Your task to perform on an android device: check data usage Image 0: 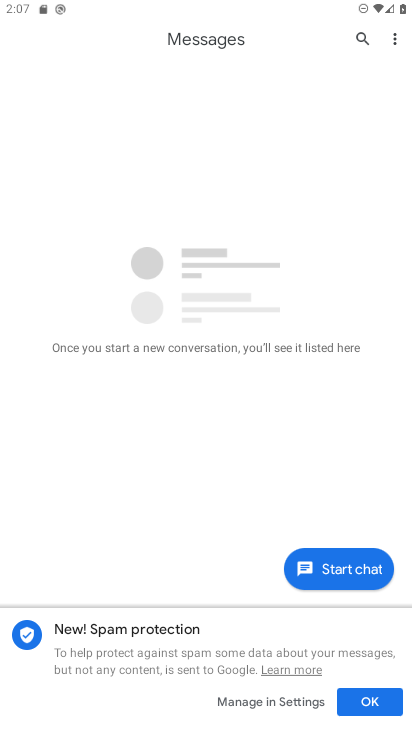
Step 0: press home button
Your task to perform on an android device: check data usage Image 1: 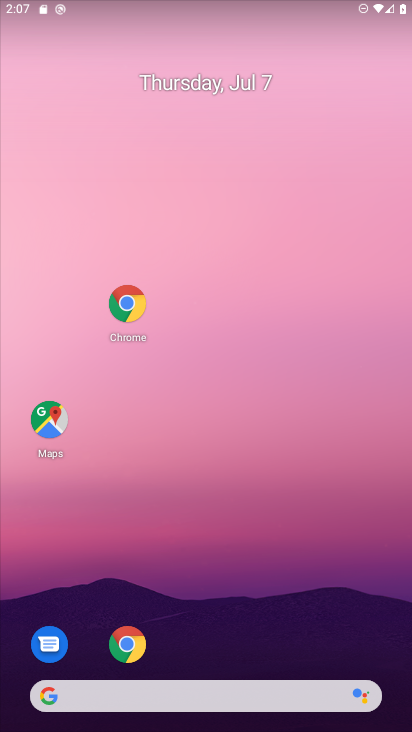
Step 1: drag from (240, 636) to (221, 179)
Your task to perform on an android device: check data usage Image 2: 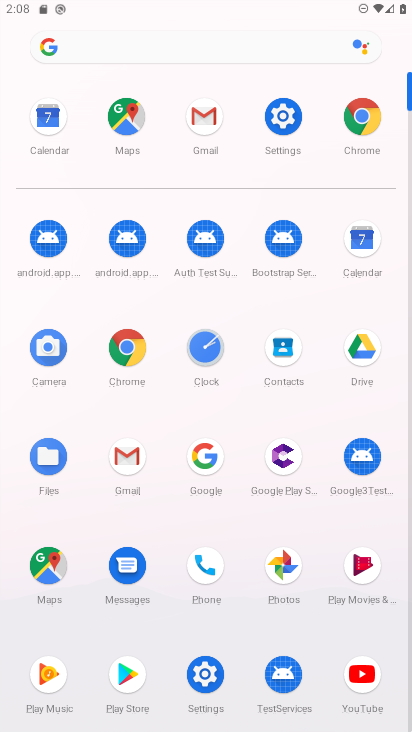
Step 2: click (211, 673)
Your task to perform on an android device: check data usage Image 3: 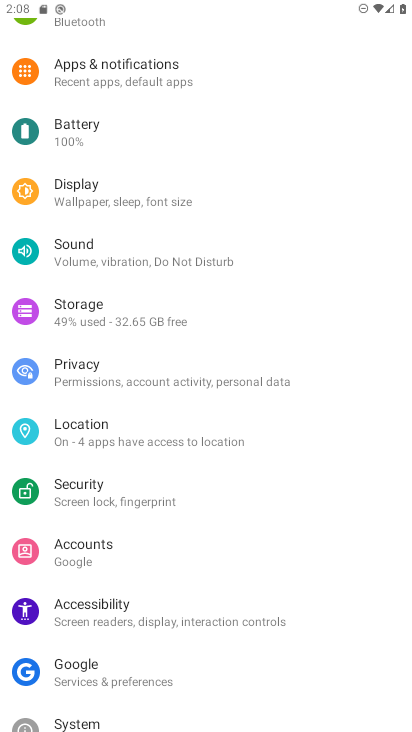
Step 3: drag from (199, 102) to (176, 400)
Your task to perform on an android device: check data usage Image 4: 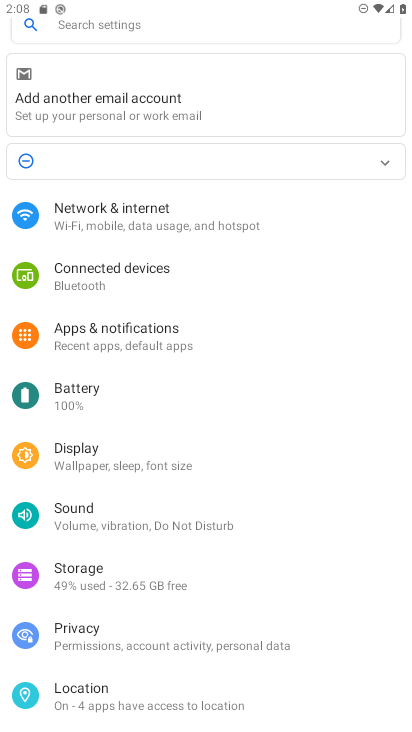
Step 4: click (202, 111)
Your task to perform on an android device: check data usage Image 5: 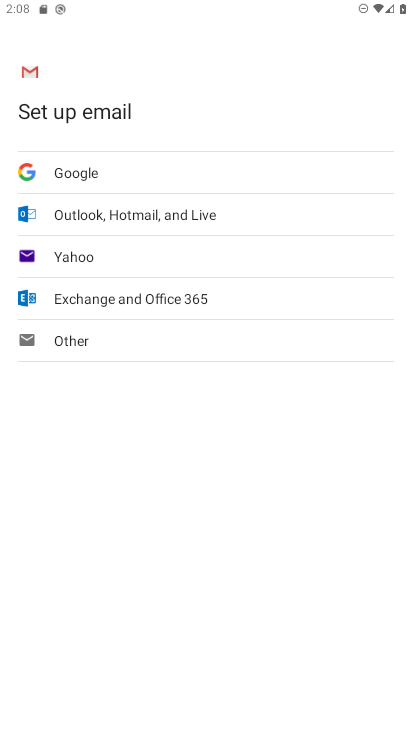
Step 5: press back button
Your task to perform on an android device: check data usage Image 6: 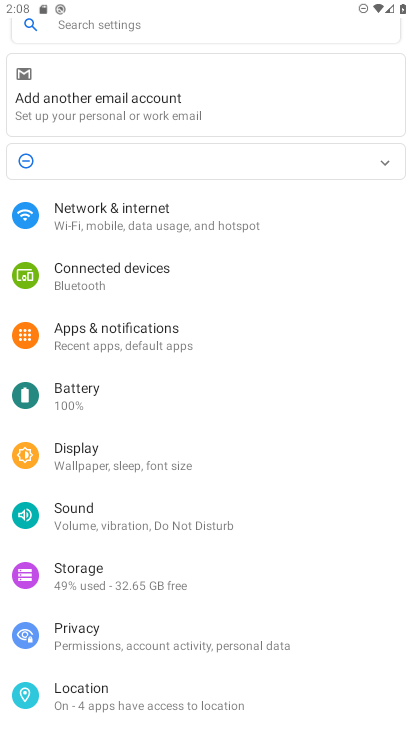
Step 6: click (113, 225)
Your task to perform on an android device: check data usage Image 7: 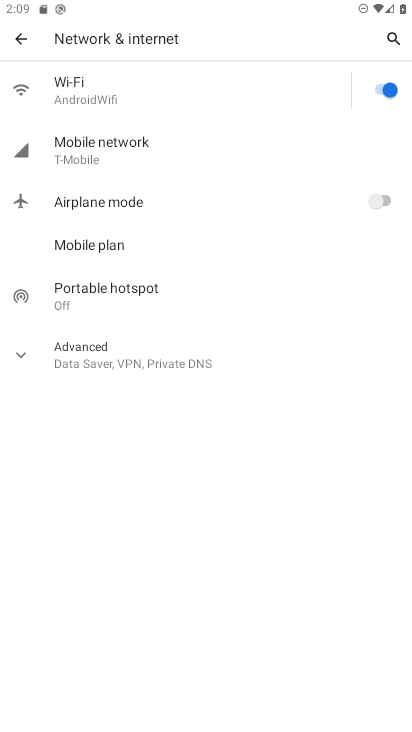
Step 7: click (179, 150)
Your task to perform on an android device: check data usage Image 8: 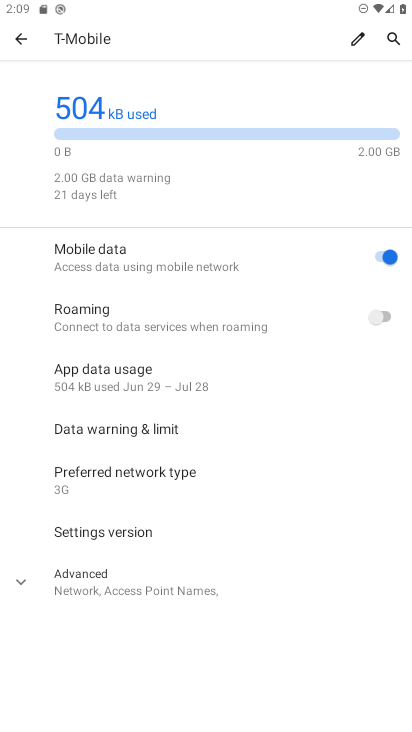
Step 8: click (190, 393)
Your task to perform on an android device: check data usage Image 9: 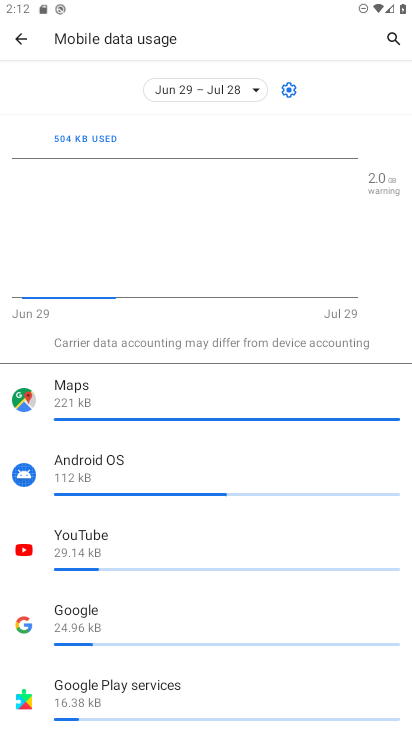
Step 9: task complete